Your task to perform on an android device: read, delete, or share a saved page in the chrome app Image 0: 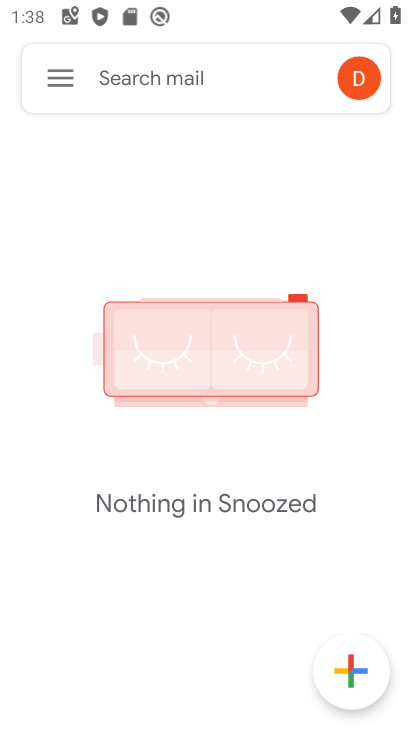
Step 0: press home button
Your task to perform on an android device: read, delete, or share a saved page in the chrome app Image 1: 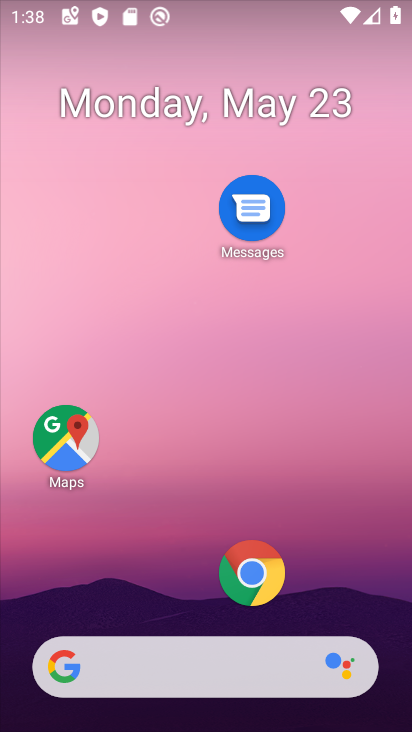
Step 1: drag from (99, 610) to (164, 192)
Your task to perform on an android device: read, delete, or share a saved page in the chrome app Image 2: 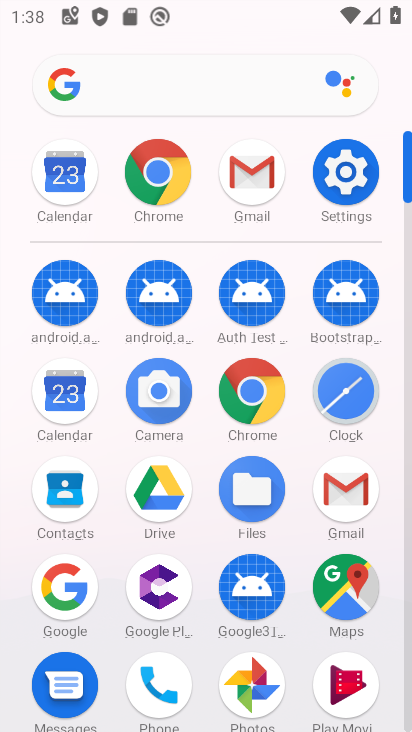
Step 2: click (160, 179)
Your task to perform on an android device: read, delete, or share a saved page in the chrome app Image 3: 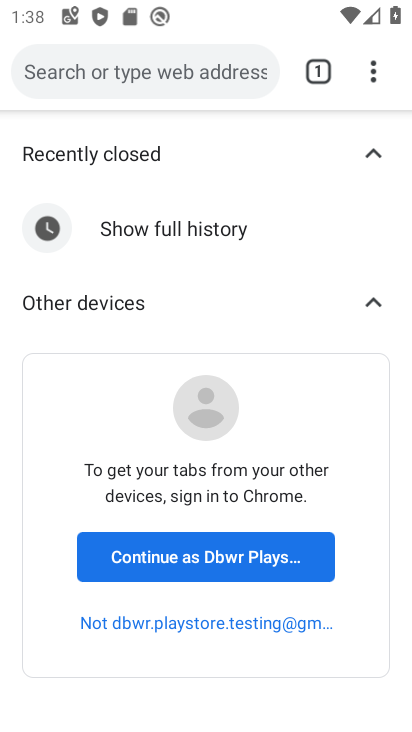
Step 3: click (369, 80)
Your task to perform on an android device: read, delete, or share a saved page in the chrome app Image 4: 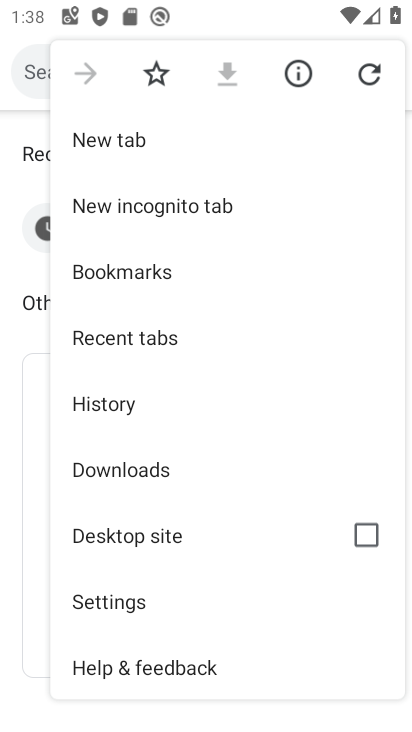
Step 4: click (19, 211)
Your task to perform on an android device: read, delete, or share a saved page in the chrome app Image 5: 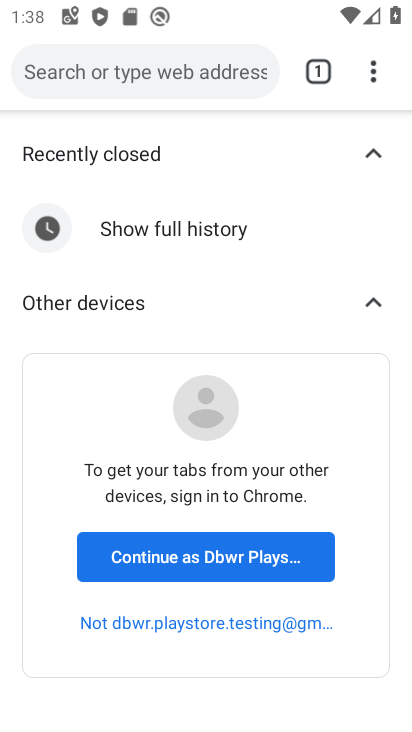
Step 5: click (369, 71)
Your task to perform on an android device: read, delete, or share a saved page in the chrome app Image 6: 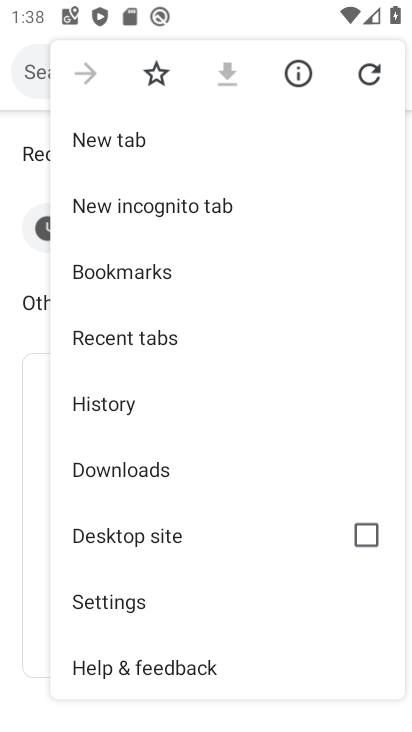
Step 6: drag from (247, 589) to (287, 239)
Your task to perform on an android device: read, delete, or share a saved page in the chrome app Image 7: 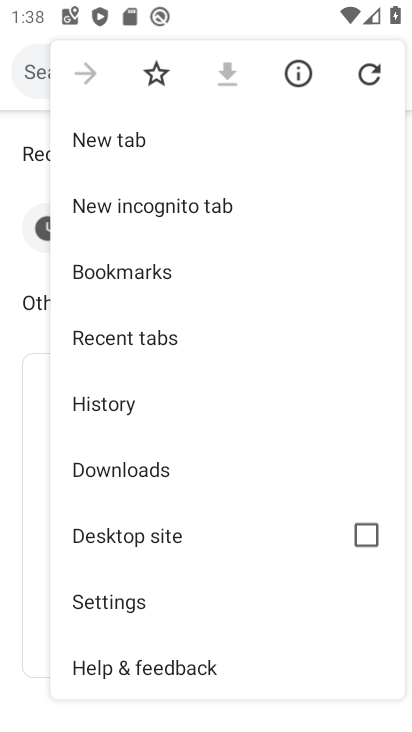
Step 7: click (137, 468)
Your task to perform on an android device: read, delete, or share a saved page in the chrome app Image 8: 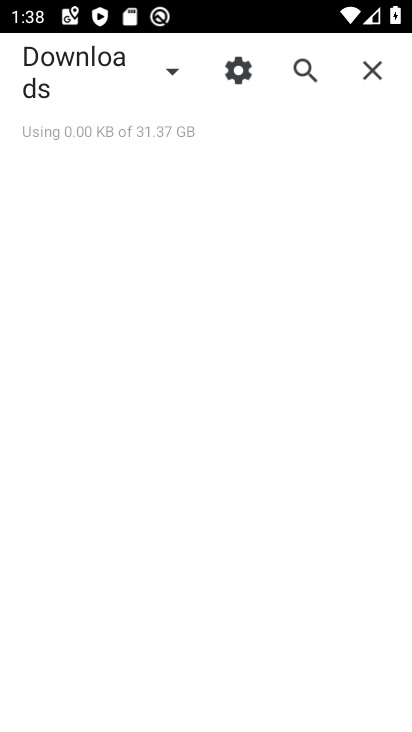
Step 8: task complete